Your task to perform on an android device: toggle improve location accuracy Image 0: 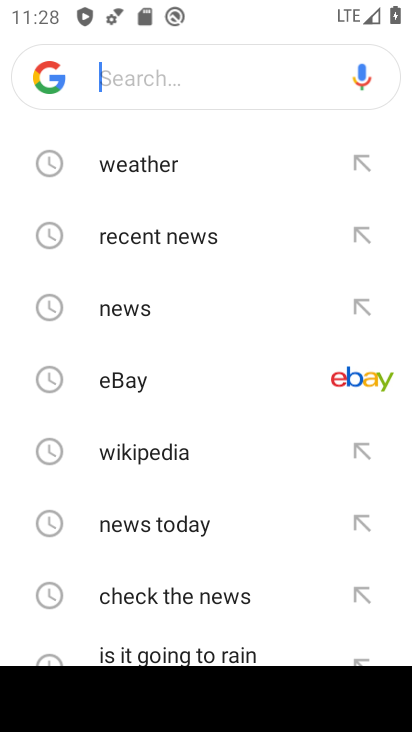
Step 0: press home button
Your task to perform on an android device: toggle improve location accuracy Image 1: 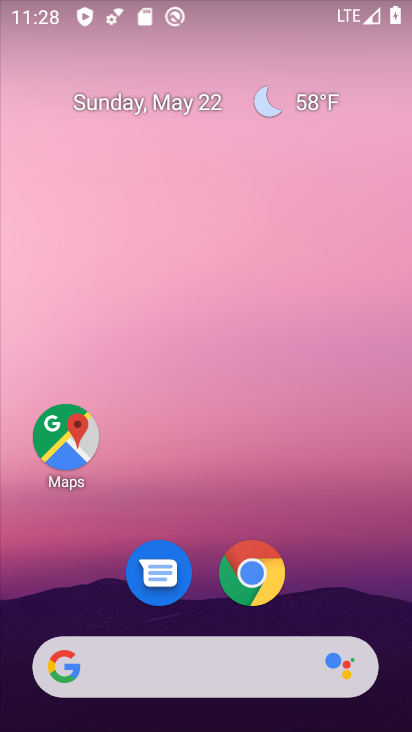
Step 1: drag from (193, 604) to (212, 103)
Your task to perform on an android device: toggle improve location accuracy Image 2: 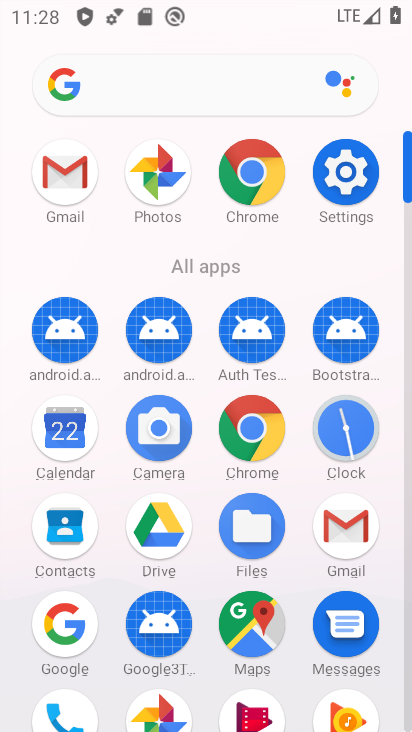
Step 2: click (338, 204)
Your task to perform on an android device: toggle improve location accuracy Image 3: 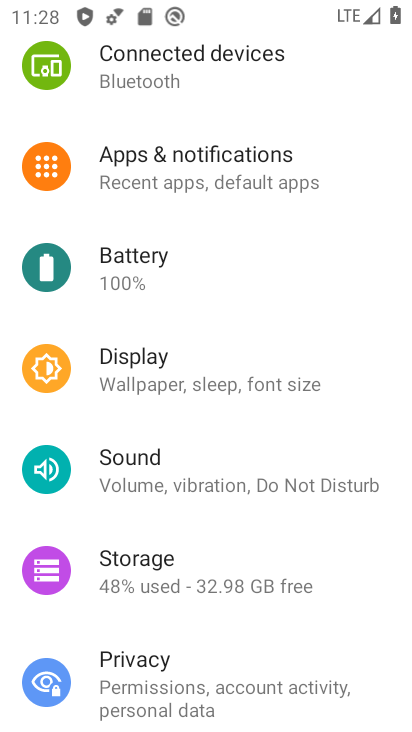
Step 3: drag from (164, 661) to (193, 263)
Your task to perform on an android device: toggle improve location accuracy Image 4: 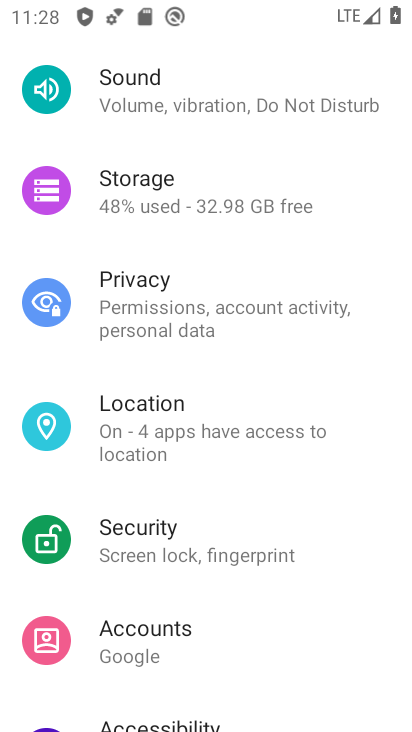
Step 4: click (166, 423)
Your task to perform on an android device: toggle improve location accuracy Image 5: 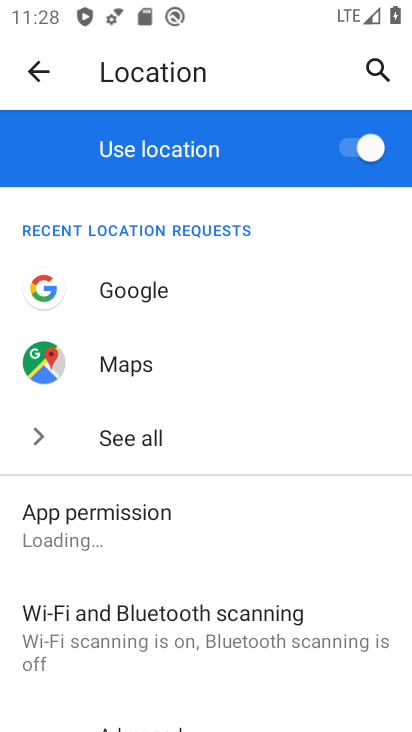
Step 5: drag from (179, 591) to (209, 245)
Your task to perform on an android device: toggle improve location accuracy Image 6: 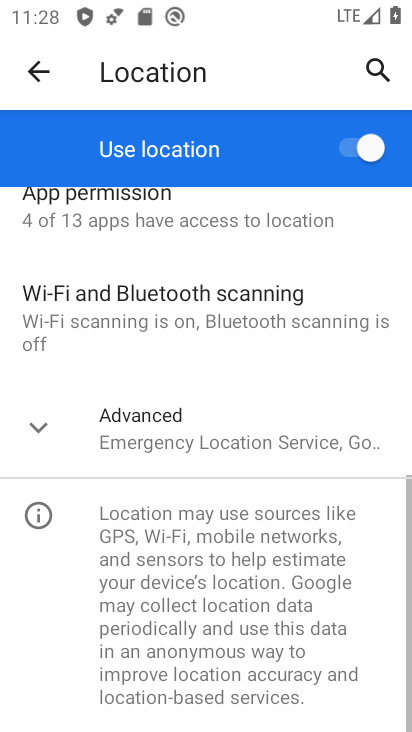
Step 6: click (146, 464)
Your task to perform on an android device: toggle improve location accuracy Image 7: 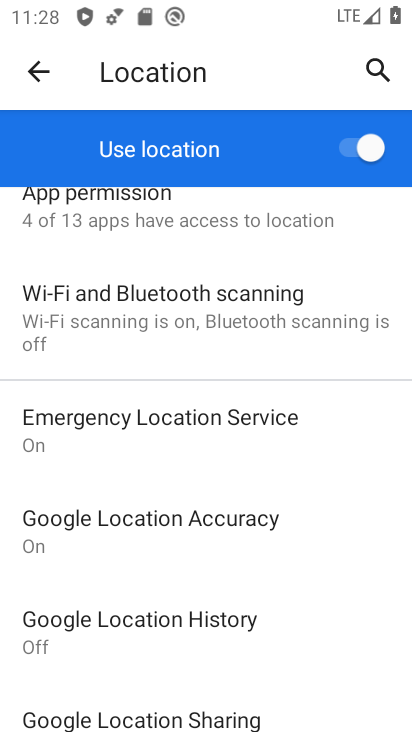
Step 7: click (167, 527)
Your task to perform on an android device: toggle improve location accuracy Image 8: 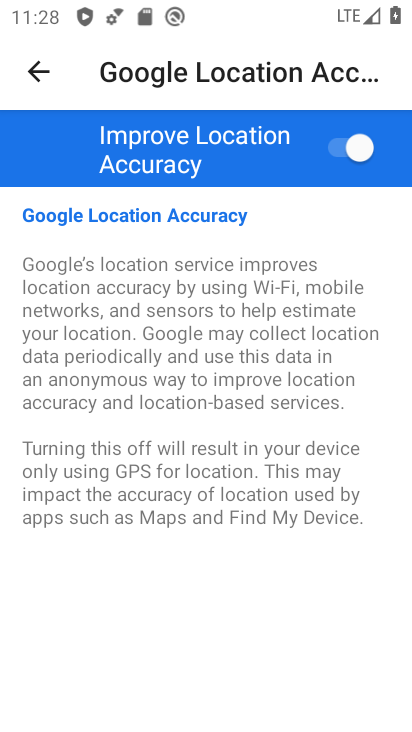
Step 8: click (327, 136)
Your task to perform on an android device: toggle improve location accuracy Image 9: 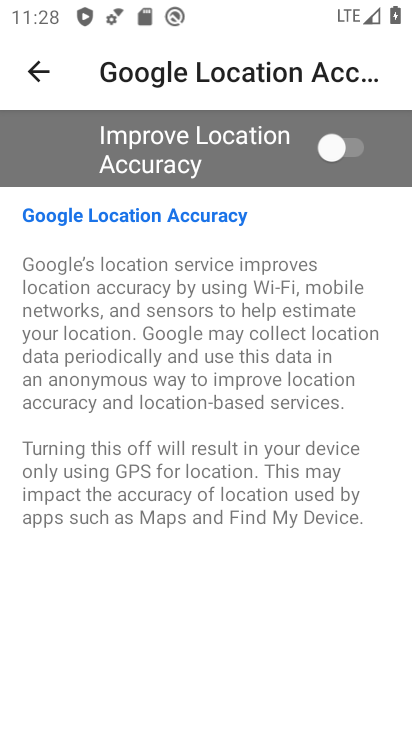
Step 9: task complete